Your task to perform on an android device: Go to Wikipedia Image 0: 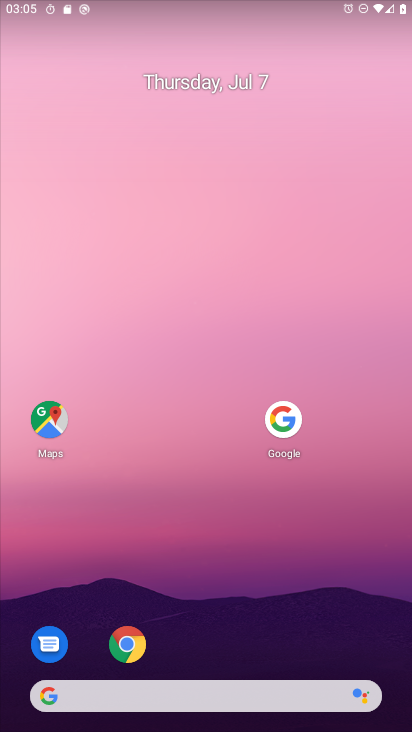
Step 0: click (127, 648)
Your task to perform on an android device: Go to Wikipedia Image 1: 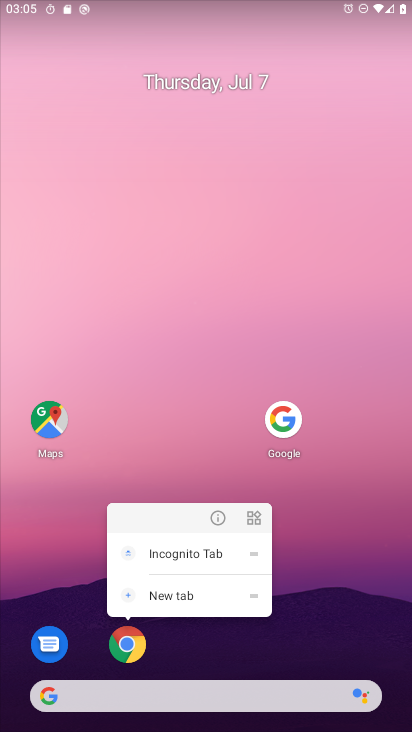
Step 1: click (128, 647)
Your task to perform on an android device: Go to Wikipedia Image 2: 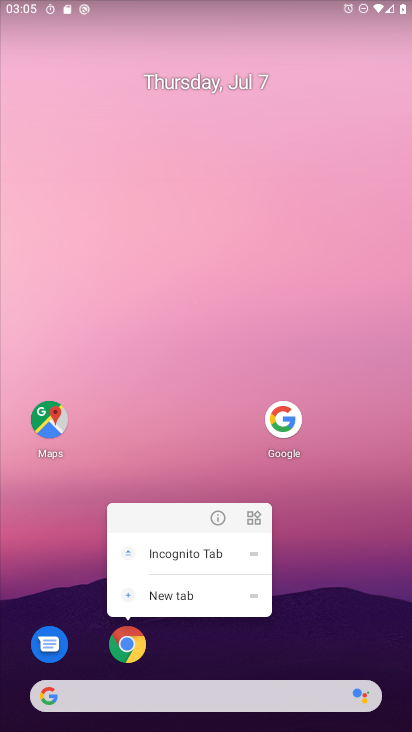
Step 2: click (130, 641)
Your task to perform on an android device: Go to Wikipedia Image 3: 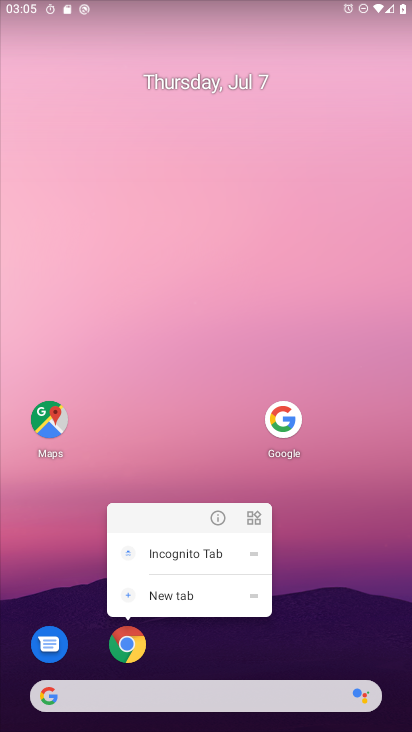
Step 3: click (127, 647)
Your task to perform on an android device: Go to Wikipedia Image 4: 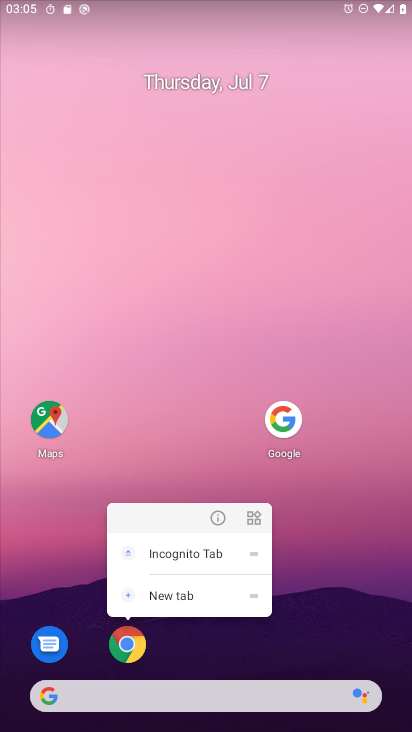
Step 4: click (134, 637)
Your task to perform on an android device: Go to Wikipedia Image 5: 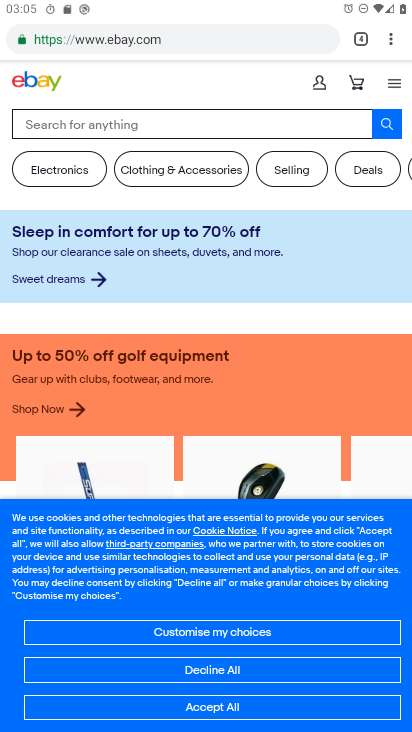
Step 5: drag from (391, 40) to (252, 79)
Your task to perform on an android device: Go to Wikipedia Image 6: 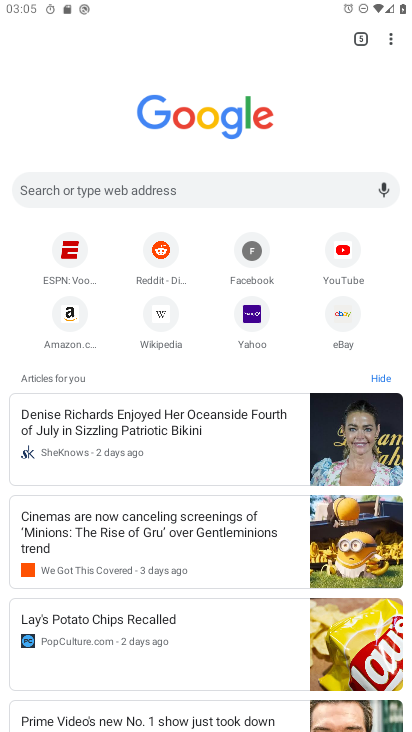
Step 6: click (162, 324)
Your task to perform on an android device: Go to Wikipedia Image 7: 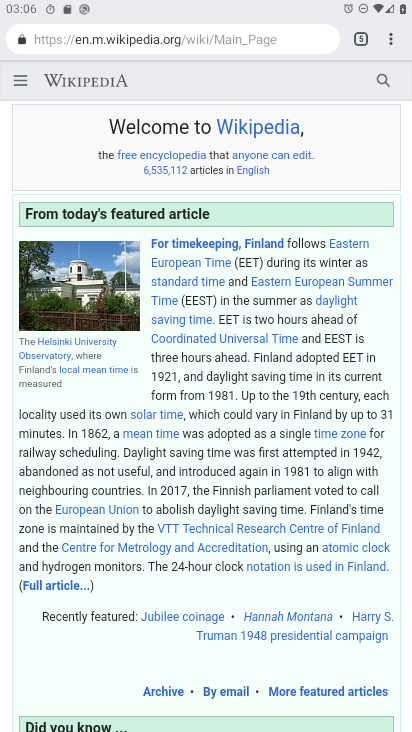
Step 7: task complete